Your task to perform on an android device: add a contact Image 0: 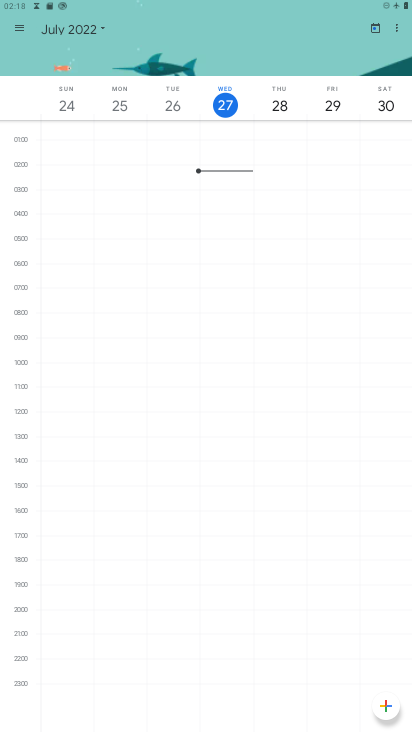
Step 0: press home button
Your task to perform on an android device: add a contact Image 1: 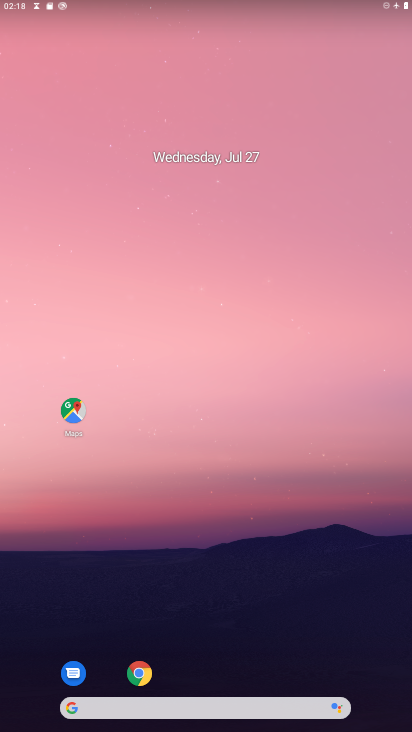
Step 1: drag from (95, 665) to (106, 283)
Your task to perform on an android device: add a contact Image 2: 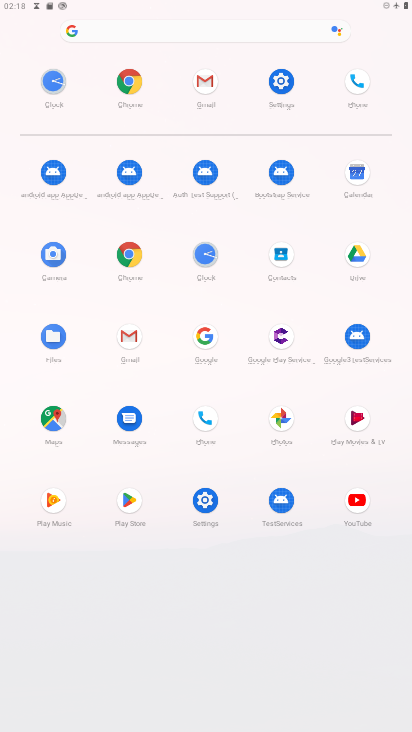
Step 2: click (197, 417)
Your task to perform on an android device: add a contact Image 3: 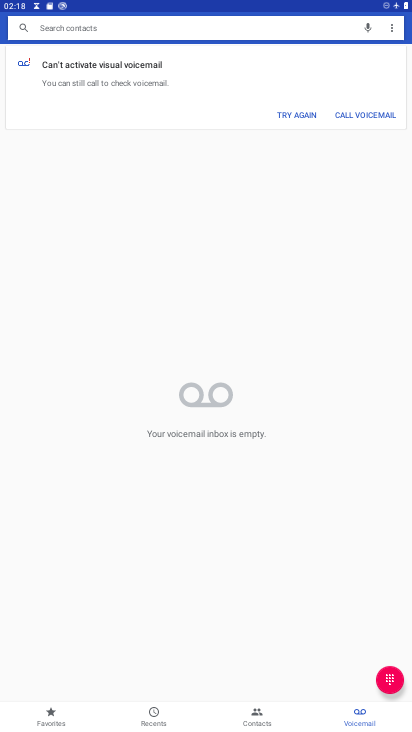
Step 3: click (249, 714)
Your task to perform on an android device: add a contact Image 4: 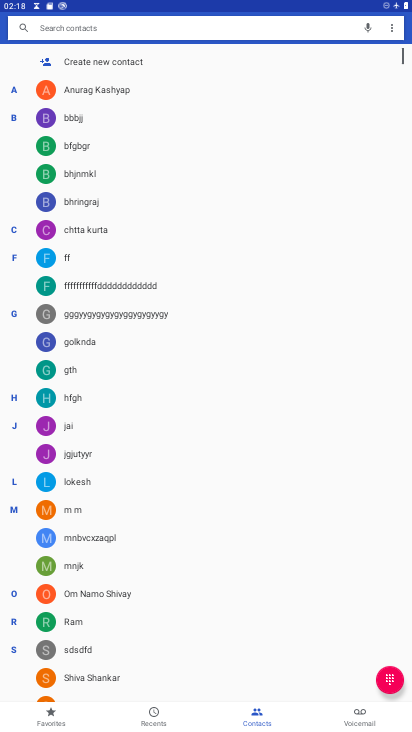
Step 4: click (116, 50)
Your task to perform on an android device: add a contact Image 5: 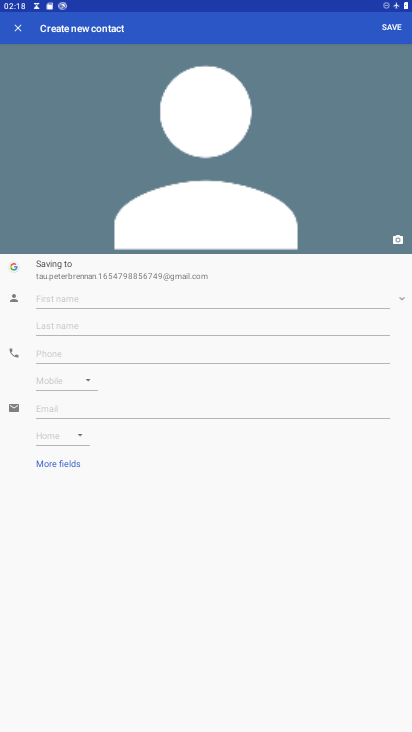
Step 5: click (145, 310)
Your task to perform on an android device: add a contact Image 6: 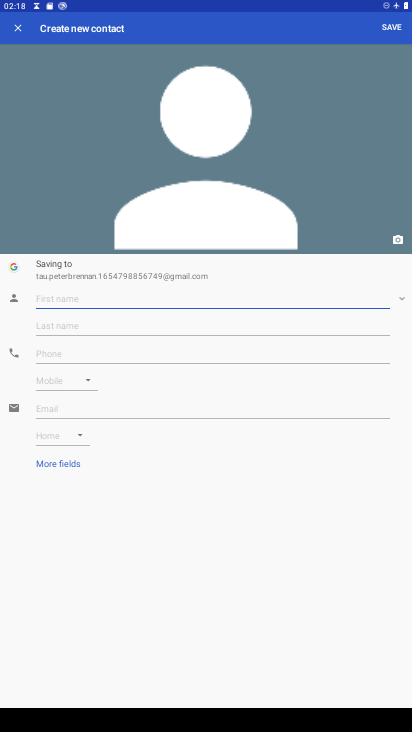
Step 6: click (315, 286)
Your task to perform on an android device: add a contact Image 7: 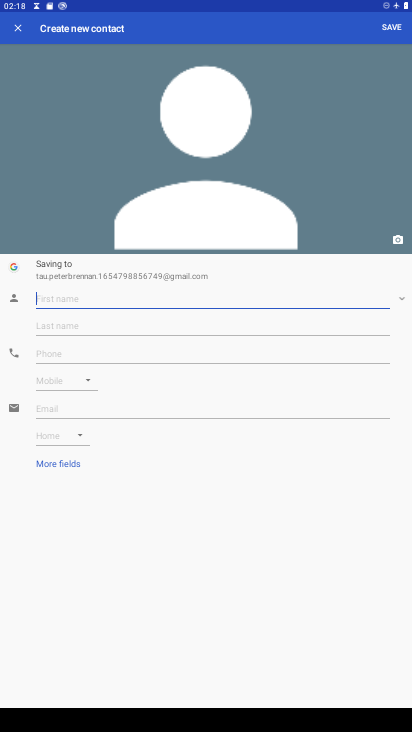
Step 7: type "sbsbssbsbbs "
Your task to perform on an android device: add a contact Image 8: 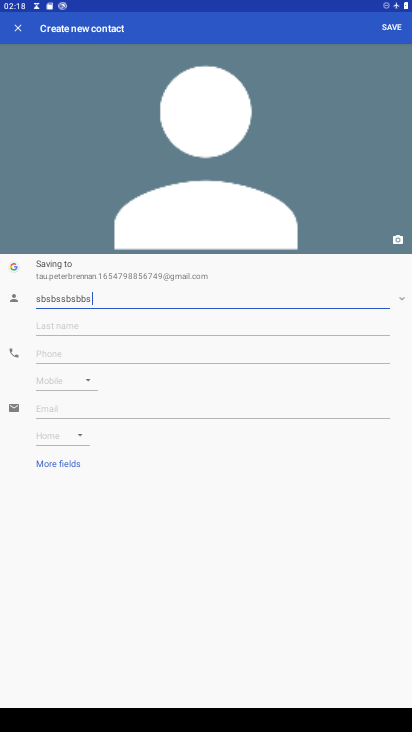
Step 8: click (172, 350)
Your task to perform on an android device: add a contact Image 9: 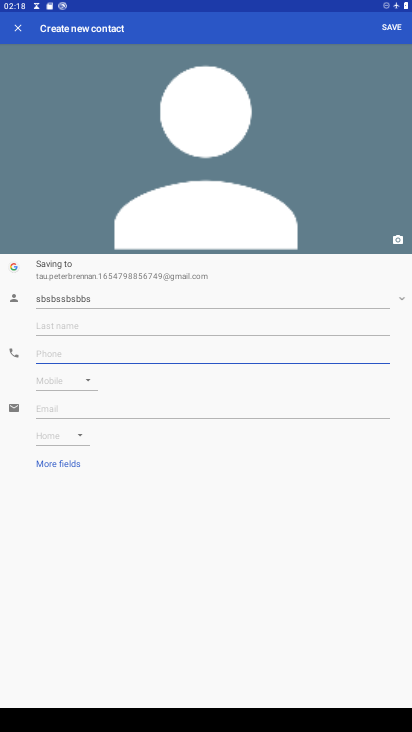
Step 9: type "848484484848 "
Your task to perform on an android device: add a contact Image 10: 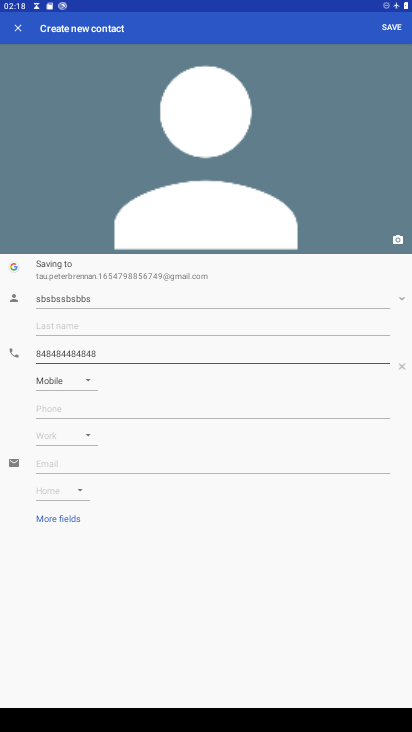
Step 10: click (400, 22)
Your task to perform on an android device: add a contact Image 11: 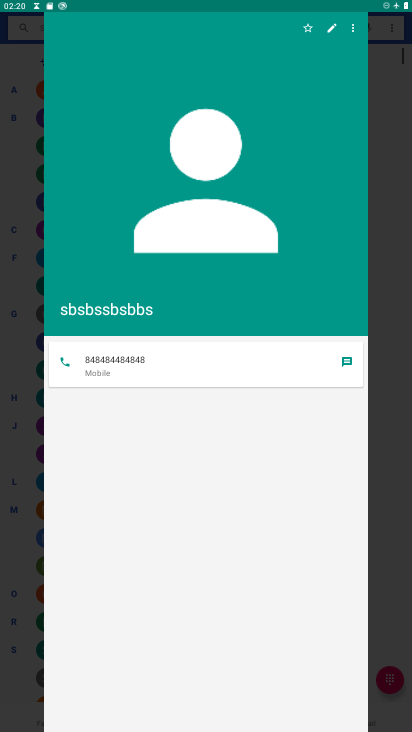
Step 11: task complete